Your task to perform on an android device: change the clock display to show seconds Image 0: 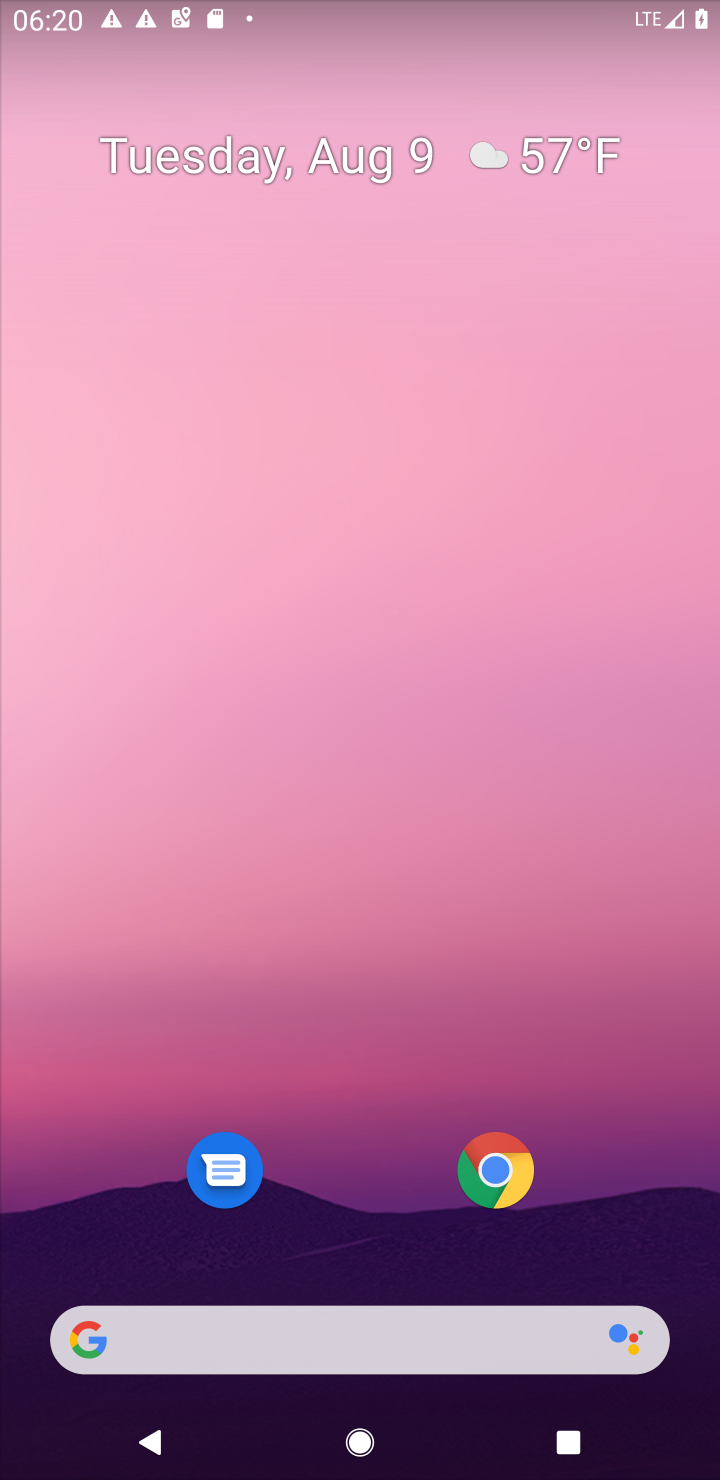
Step 0: drag from (343, 612) to (344, 99)
Your task to perform on an android device: change the clock display to show seconds Image 1: 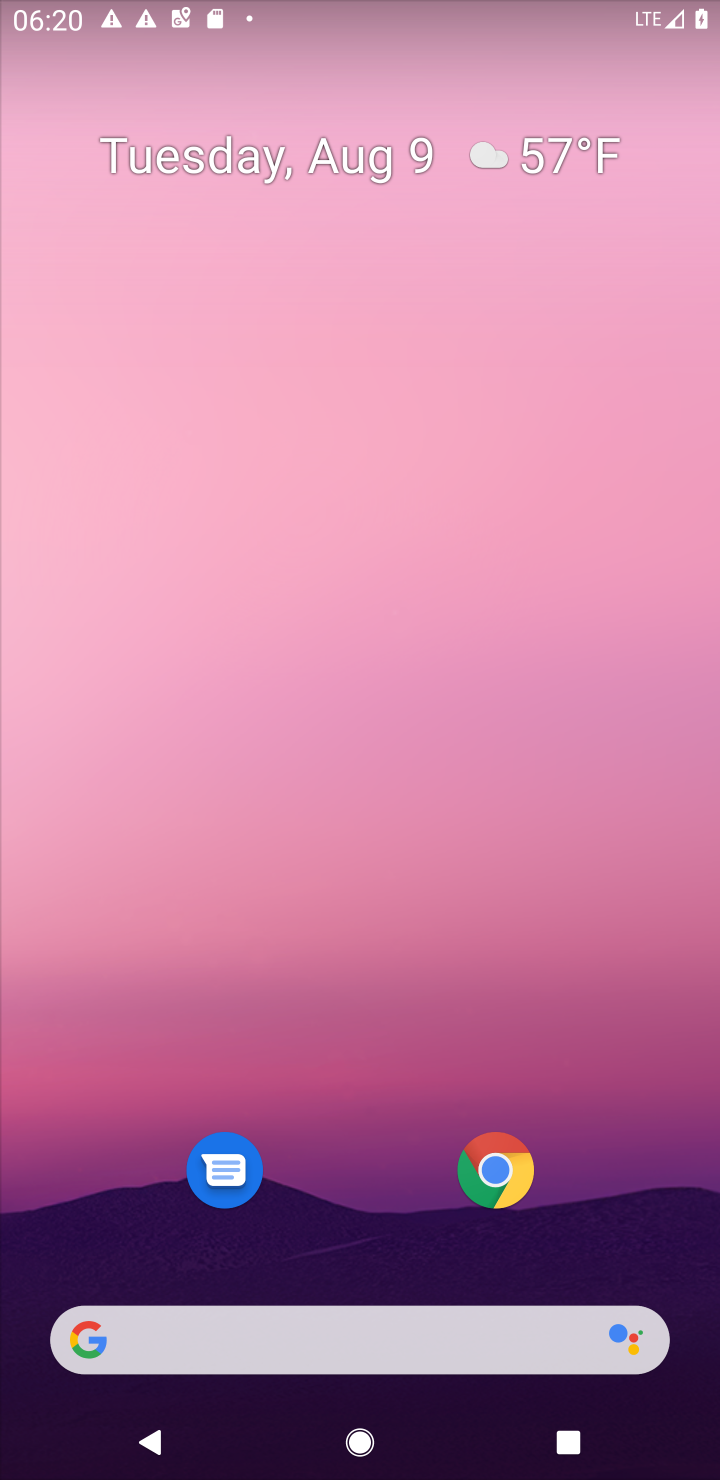
Step 1: drag from (369, 783) to (372, 138)
Your task to perform on an android device: change the clock display to show seconds Image 2: 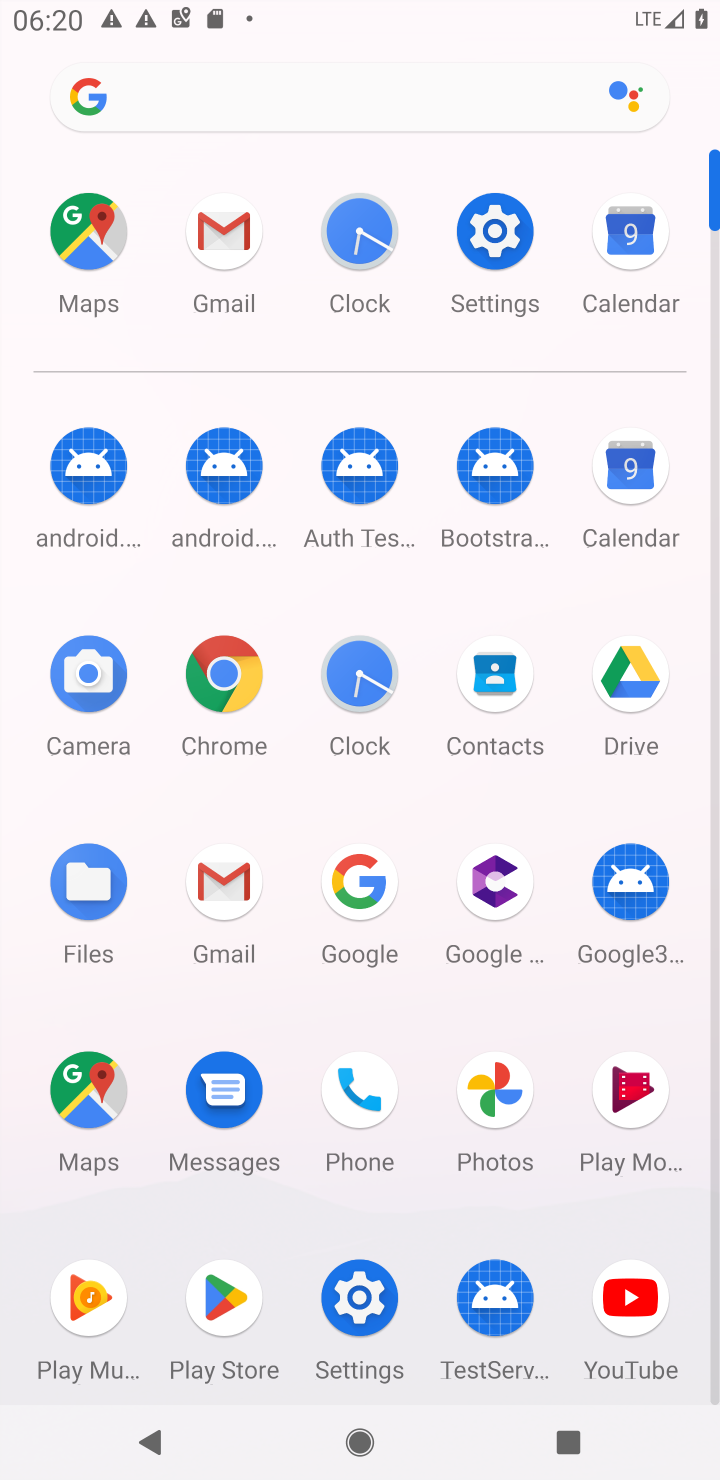
Step 2: click (363, 251)
Your task to perform on an android device: change the clock display to show seconds Image 3: 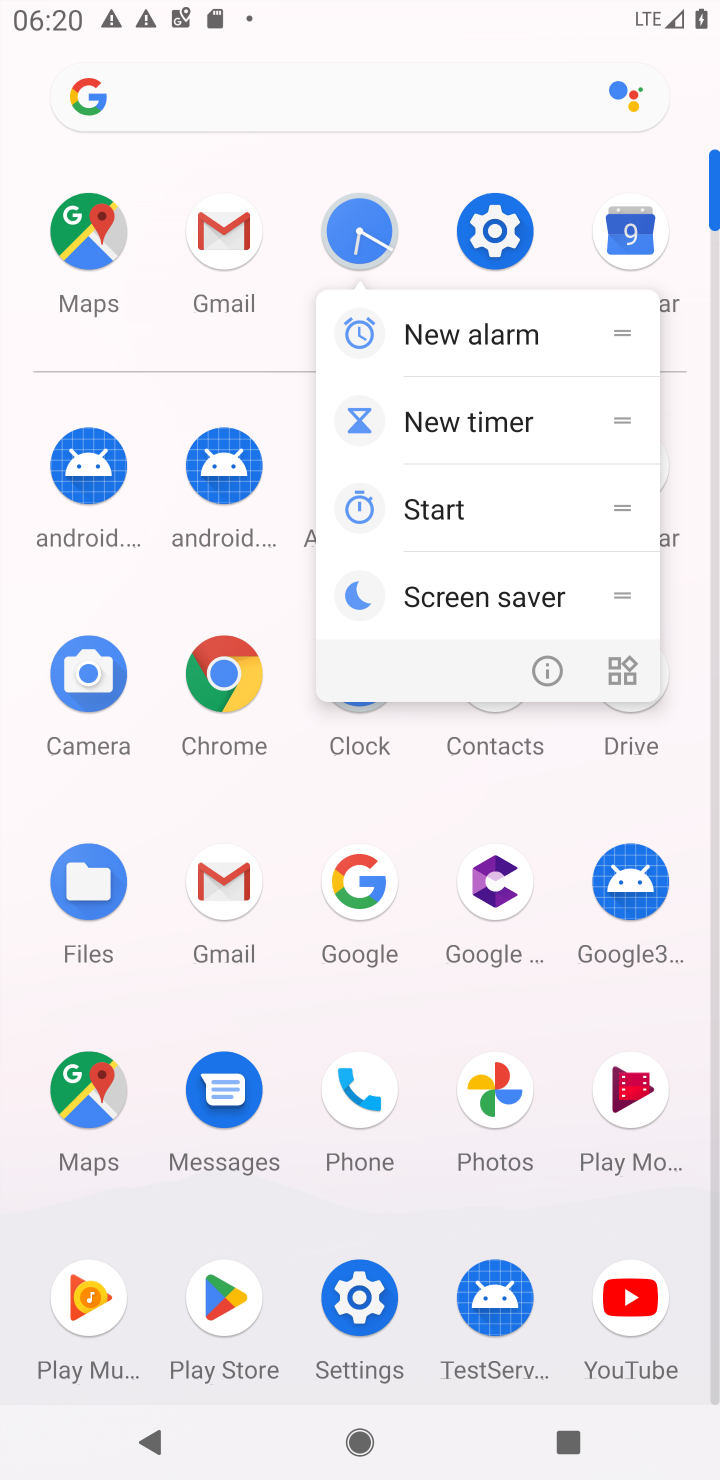
Step 3: click (363, 251)
Your task to perform on an android device: change the clock display to show seconds Image 4: 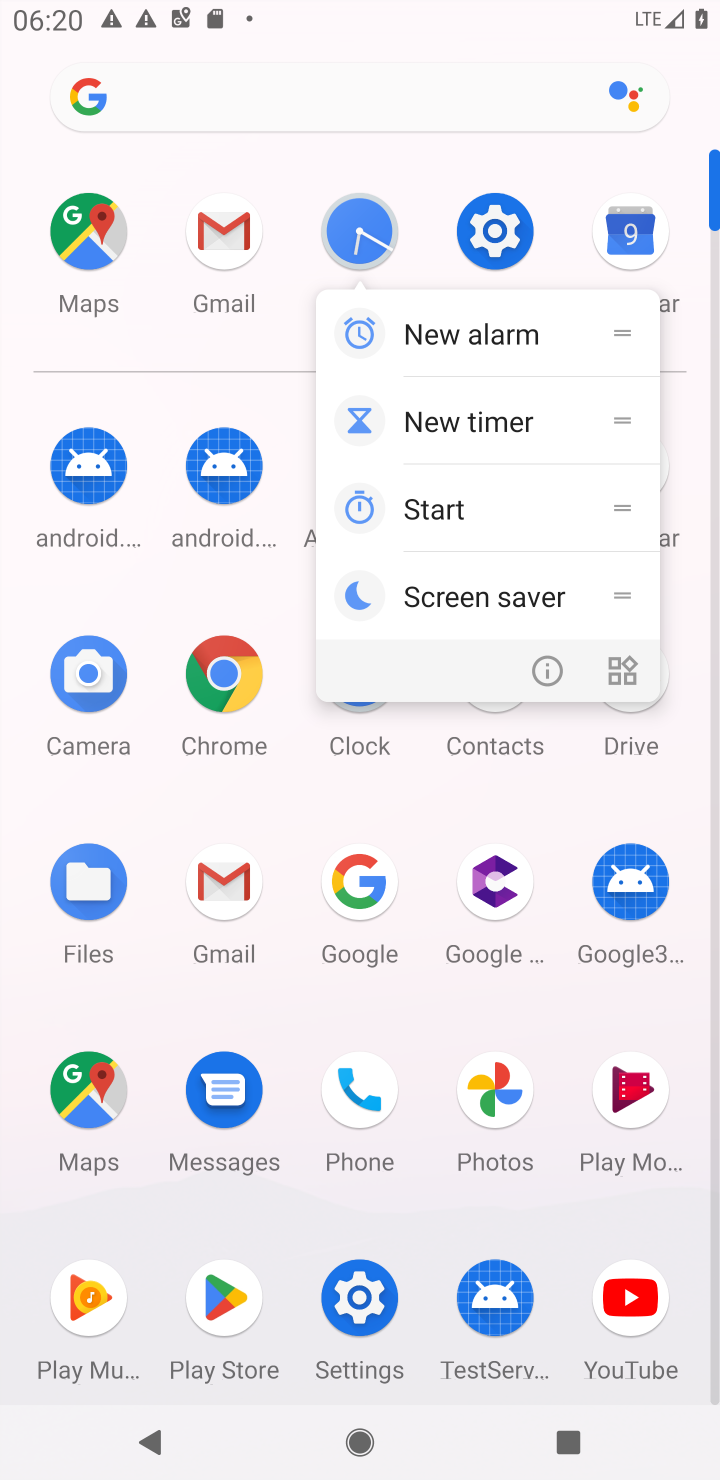
Step 4: click (363, 251)
Your task to perform on an android device: change the clock display to show seconds Image 5: 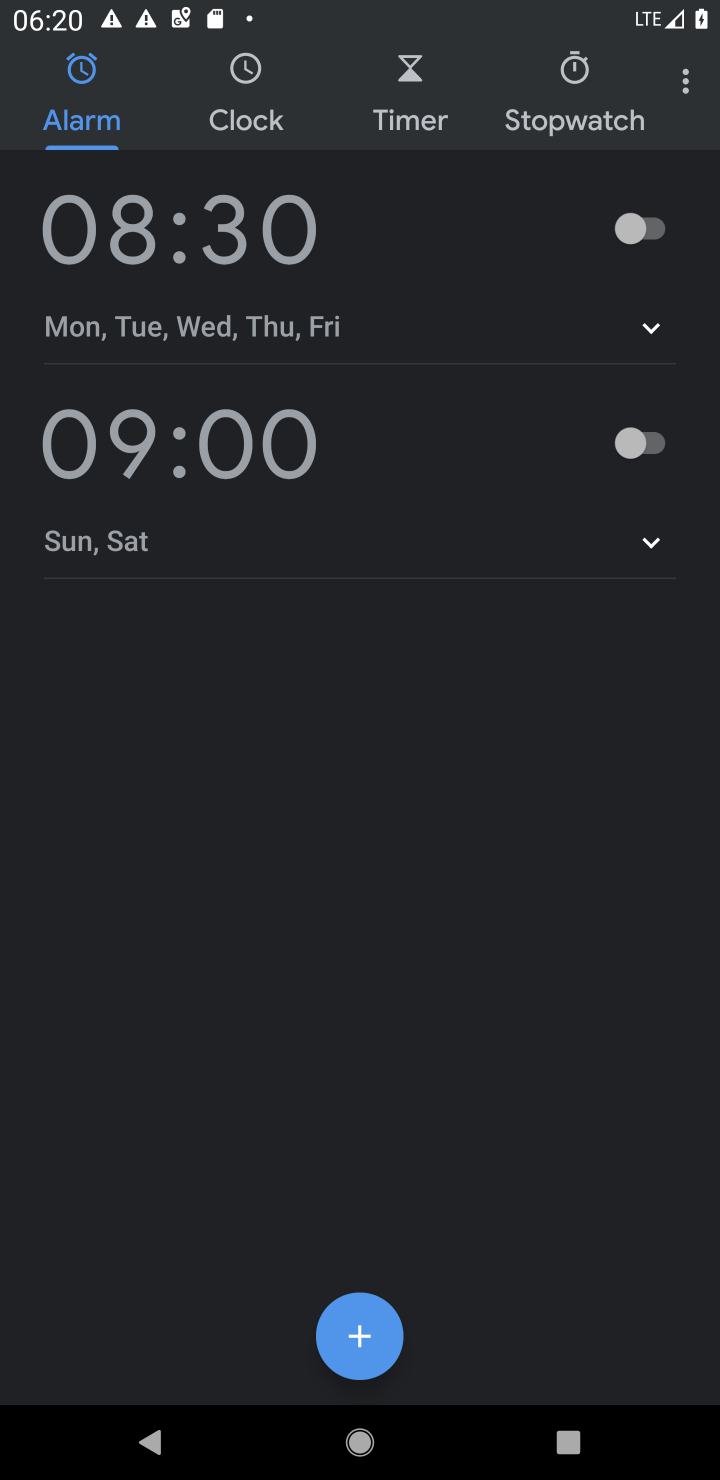
Step 5: click (673, 98)
Your task to perform on an android device: change the clock display to show seconds Image 6: 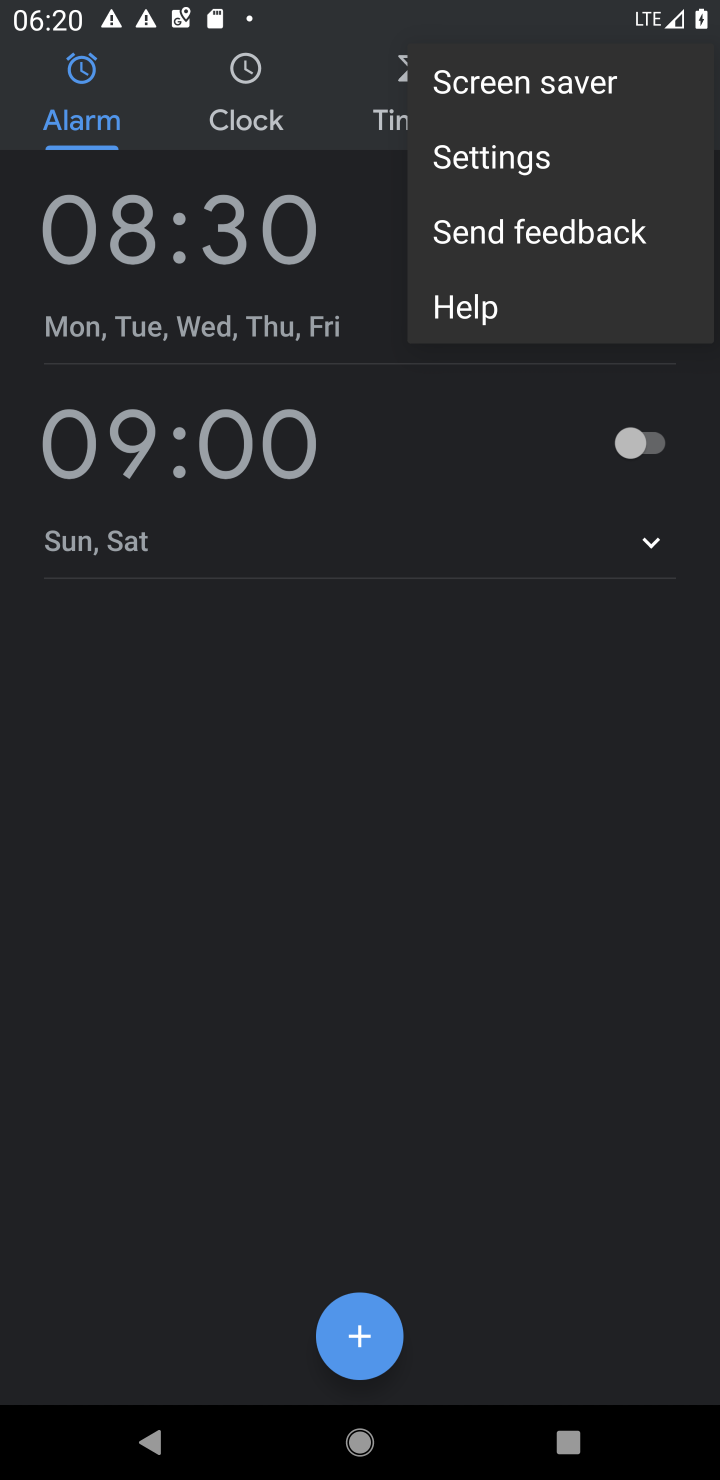
Step 6: click (488, 174)
Your task to perform on an android device: change the clock display to show seconds Image 7: 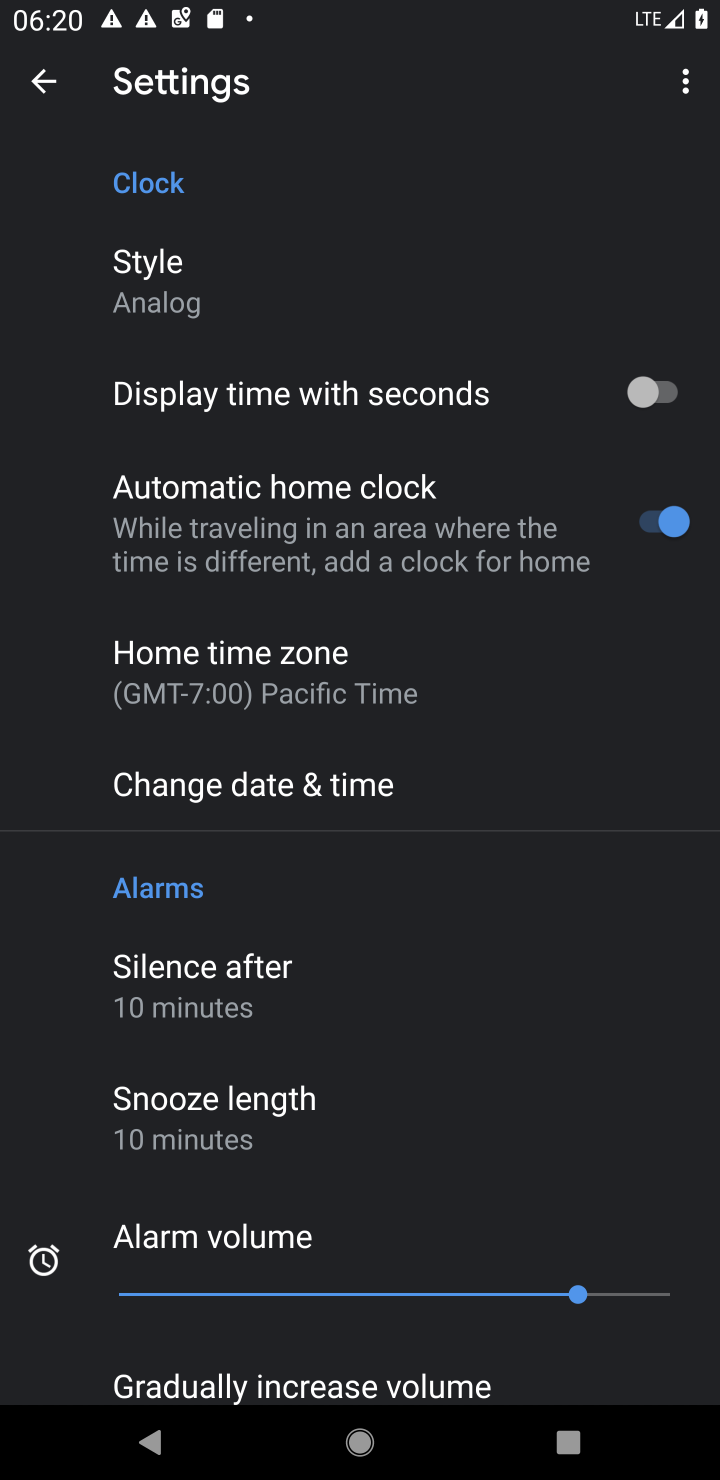
Step 7: click (637, 385)
Your task to perform on an android device: change the clock display to show seconds Image 8: 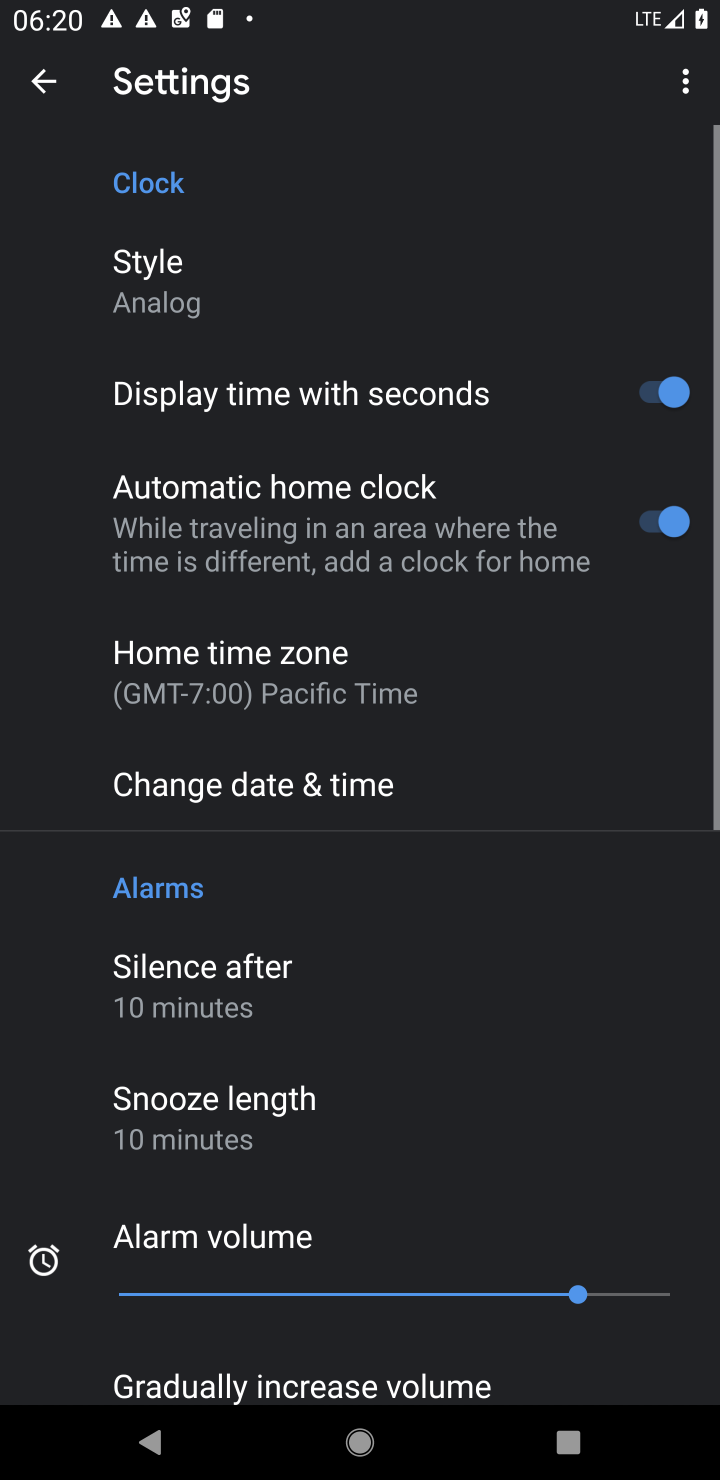
Step 8: task complete